Your task to perform on an android device: Empty the shopping cart on ebay.com. Add "macbook pro 13 inch" to the cart on ebay.com, then select checkout. Image 0: 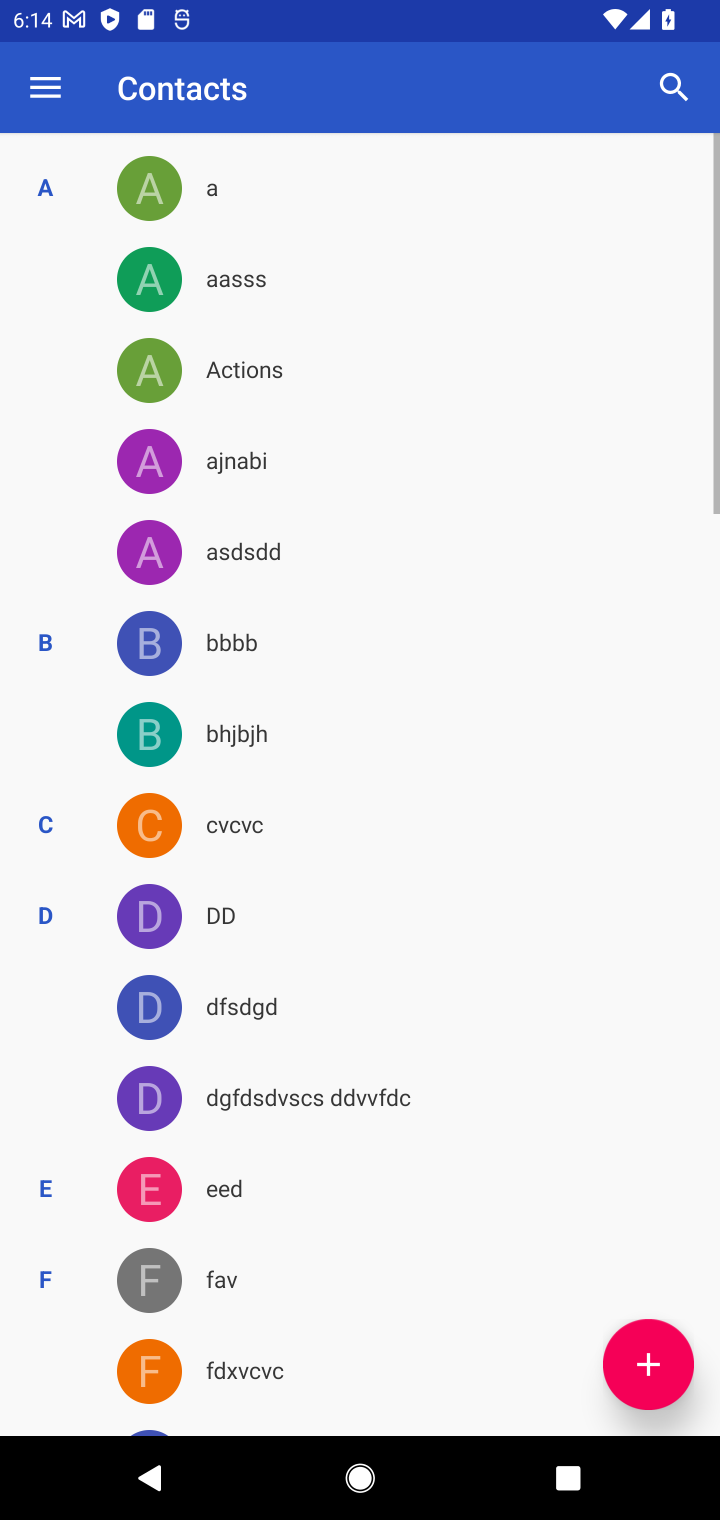
Step 0: press home button
Your task to perform on an android device: Empty the shopping cart on ebay.com. Add "macbook pro 13 inch" to the cart on ebay.com, then select checkout. Image 1: 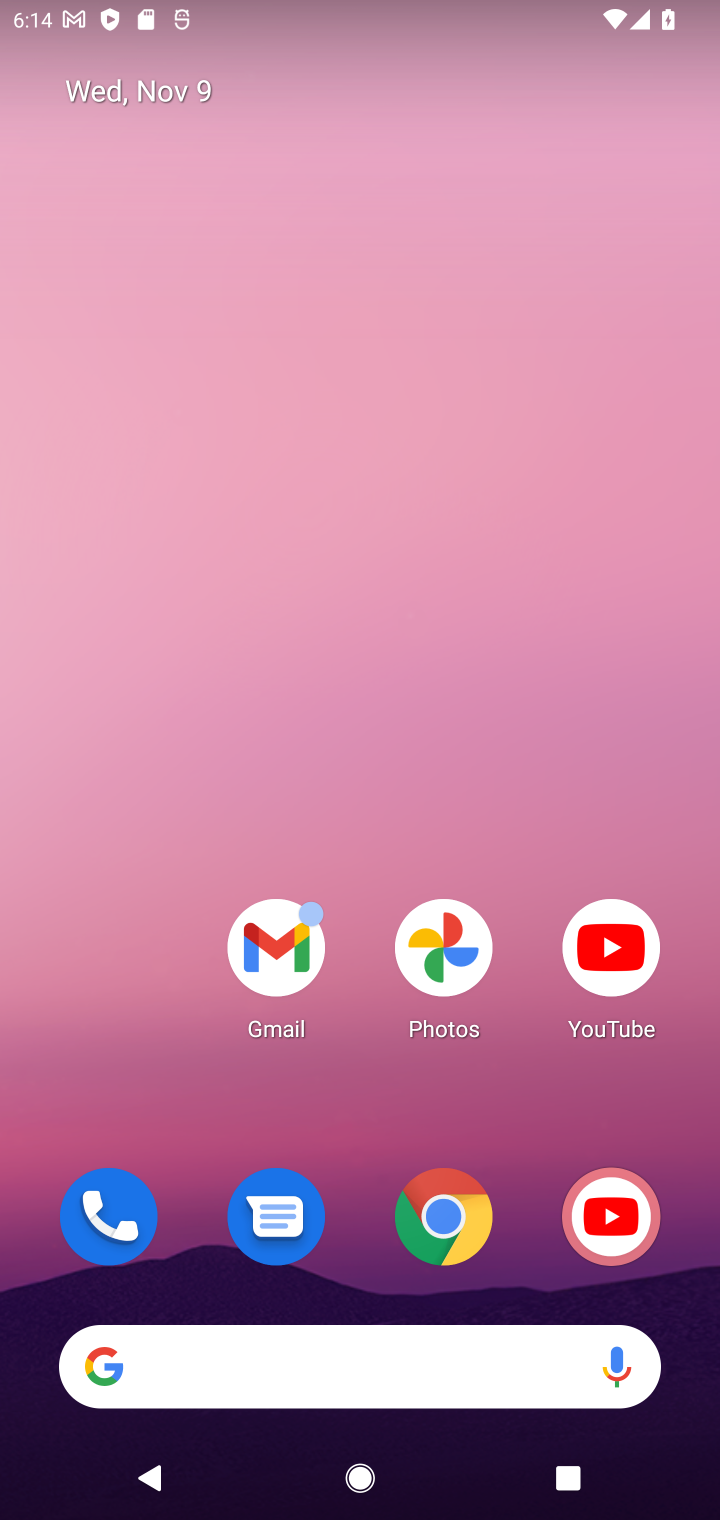
Step 1: drag from (360, 1146) to (394, 150)
Your task to perform on an android device: Empty the shopping cart on ebay.com. Add "macbook pro 13 inch" to the cart on ebay.com, then select checkout. Image 2: 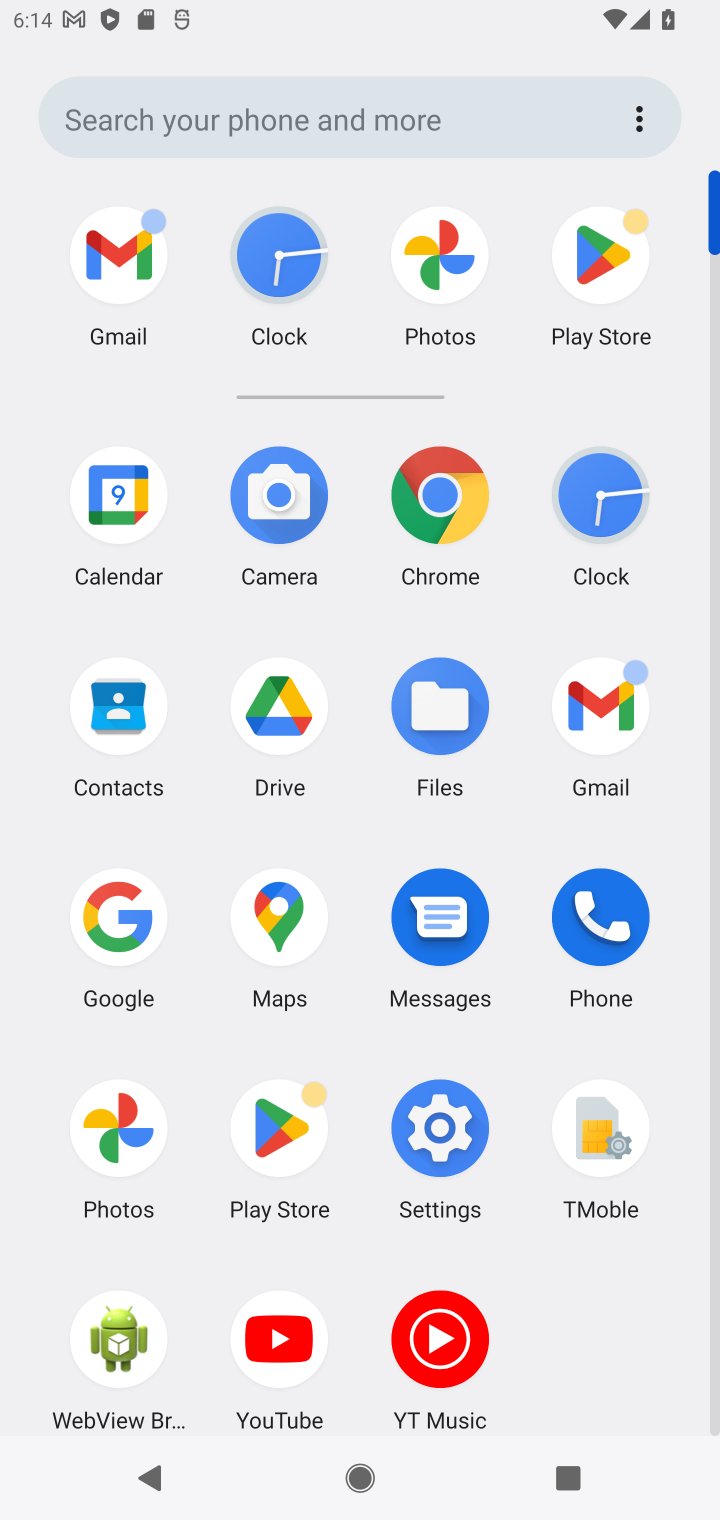
Step 2: click (451, 508)
Your task to perform on an android device: Empty the shopping cart on ebay.com. Add "macbook pro 13 inch" to the cart on ebay.com, then select checkout. Image 3: 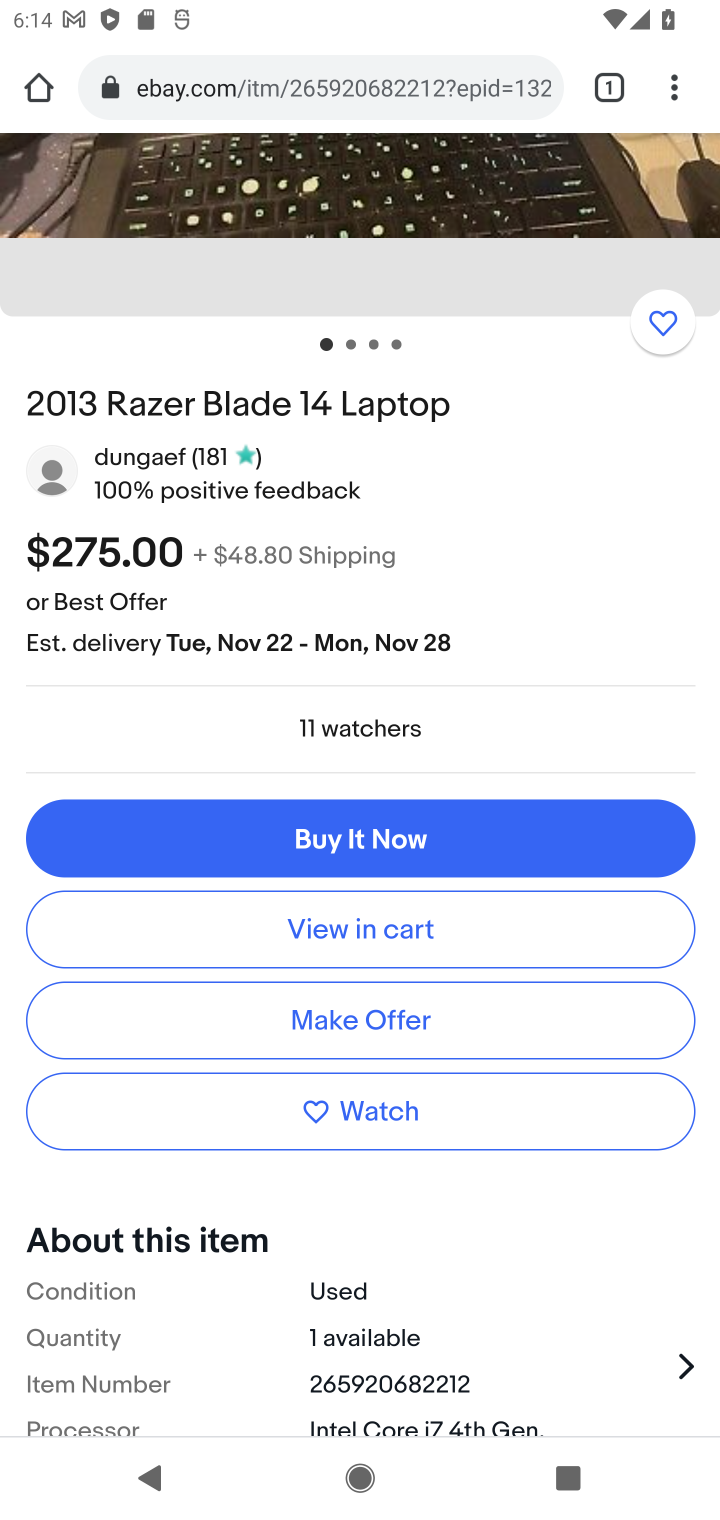
Step 3: click (414, 78)
Your task to perform on an android device: Empty the shopping cart on ebay.com. Add "macbook pro 13 inch" to the cart on ebay.com, then select checkout. Image 4: 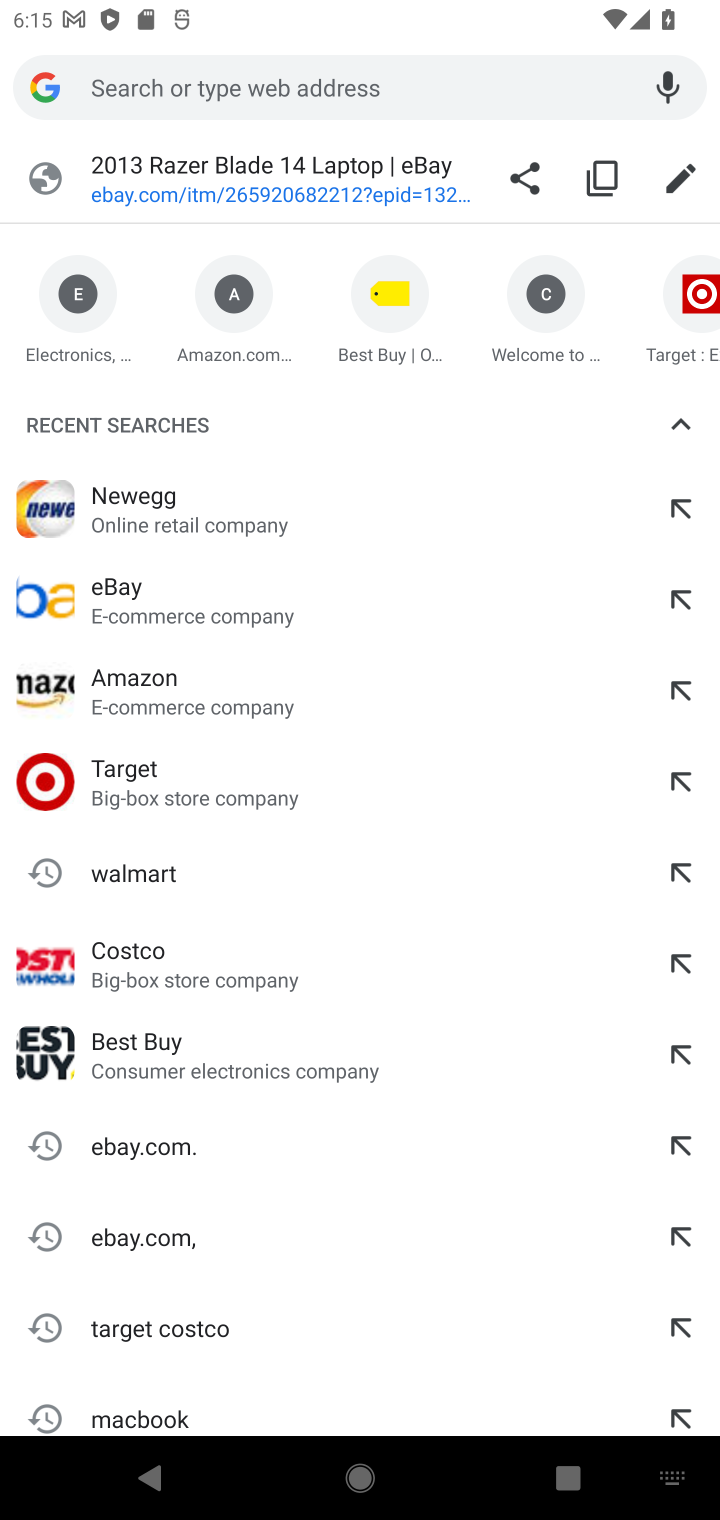
Step 4: type "ebay.com"
Your task to perform on an android device: Empty the shopping cart on ebay.com. Add "macbook pro 13 inch" to the cart on ebay.com, then select checkout. Image 5: 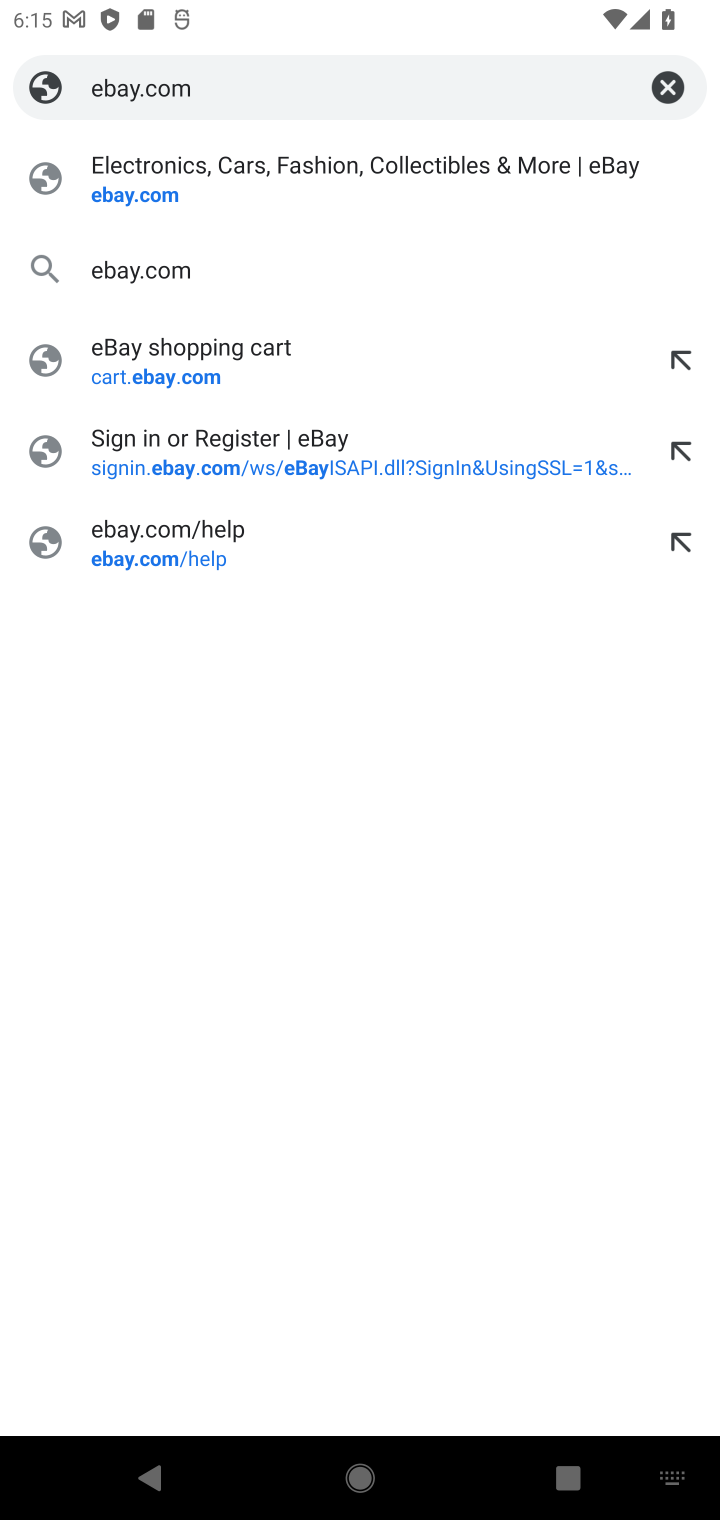
Step 5: press enter
Your task to perform on an android device: Empty the shopping cart on ebay.com. Add "macbook pro 13 inch" to the cart on ebay.com, then select checkout. Image 6: 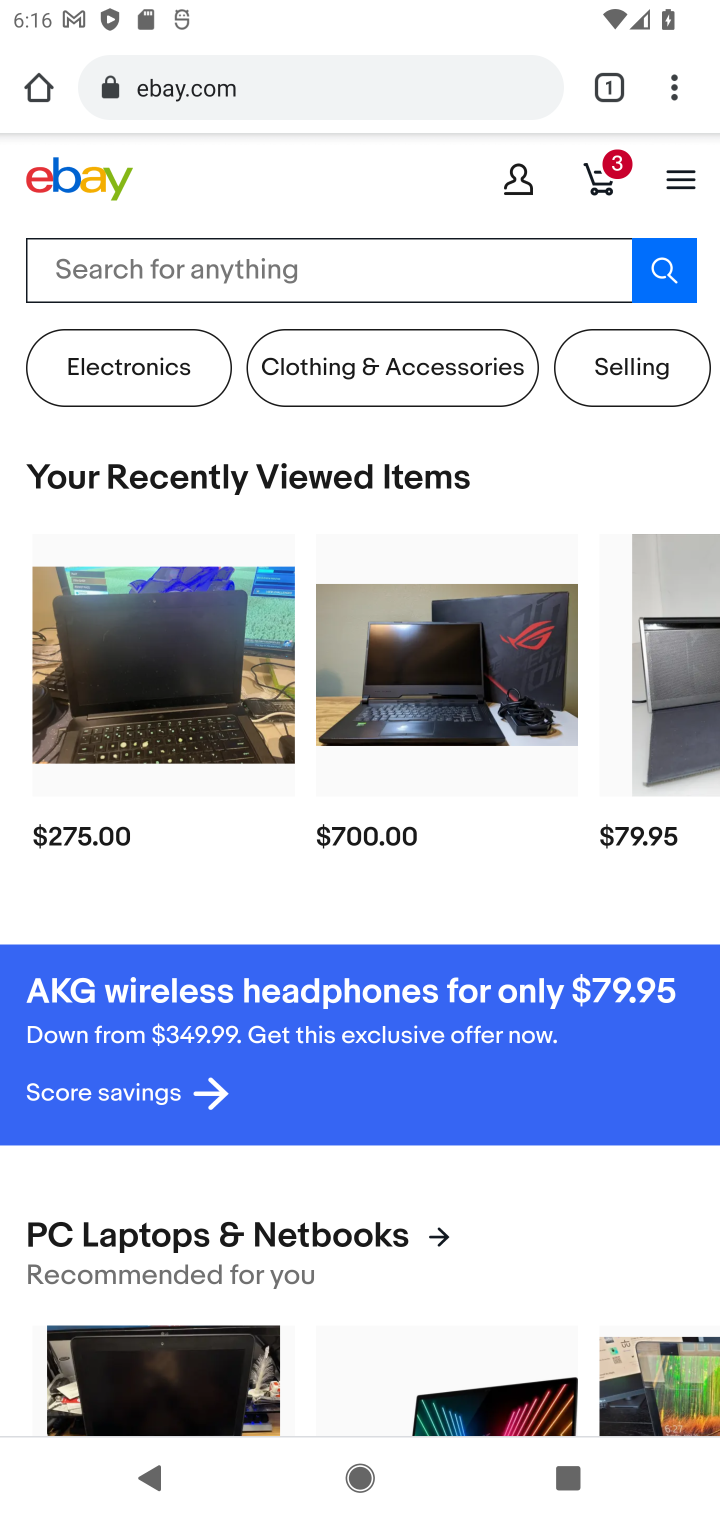
Step 6: click (603, 172)
Your task to perform on an android device: Empty the shopping cart on ebay.com. Add "macbook pro 13 inch" to the cart on ebay.com, then select checkout. Image 7: 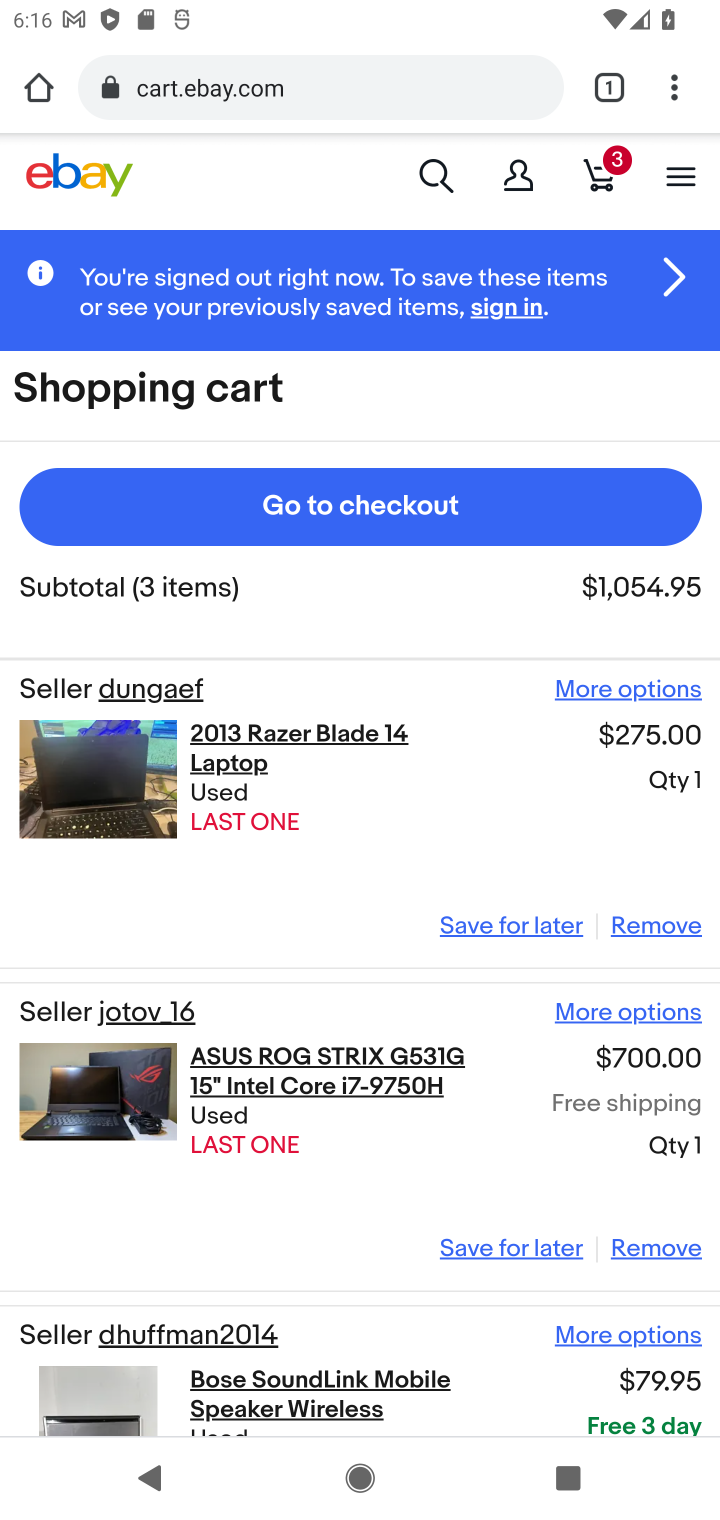
Step 7: click (663, 927)
Your task to perform on an android device: Empty the shopping cart on ebay.com. Add "macbook pro 13 inch" to the cart on ebay.com, then select checkout. Image 8: 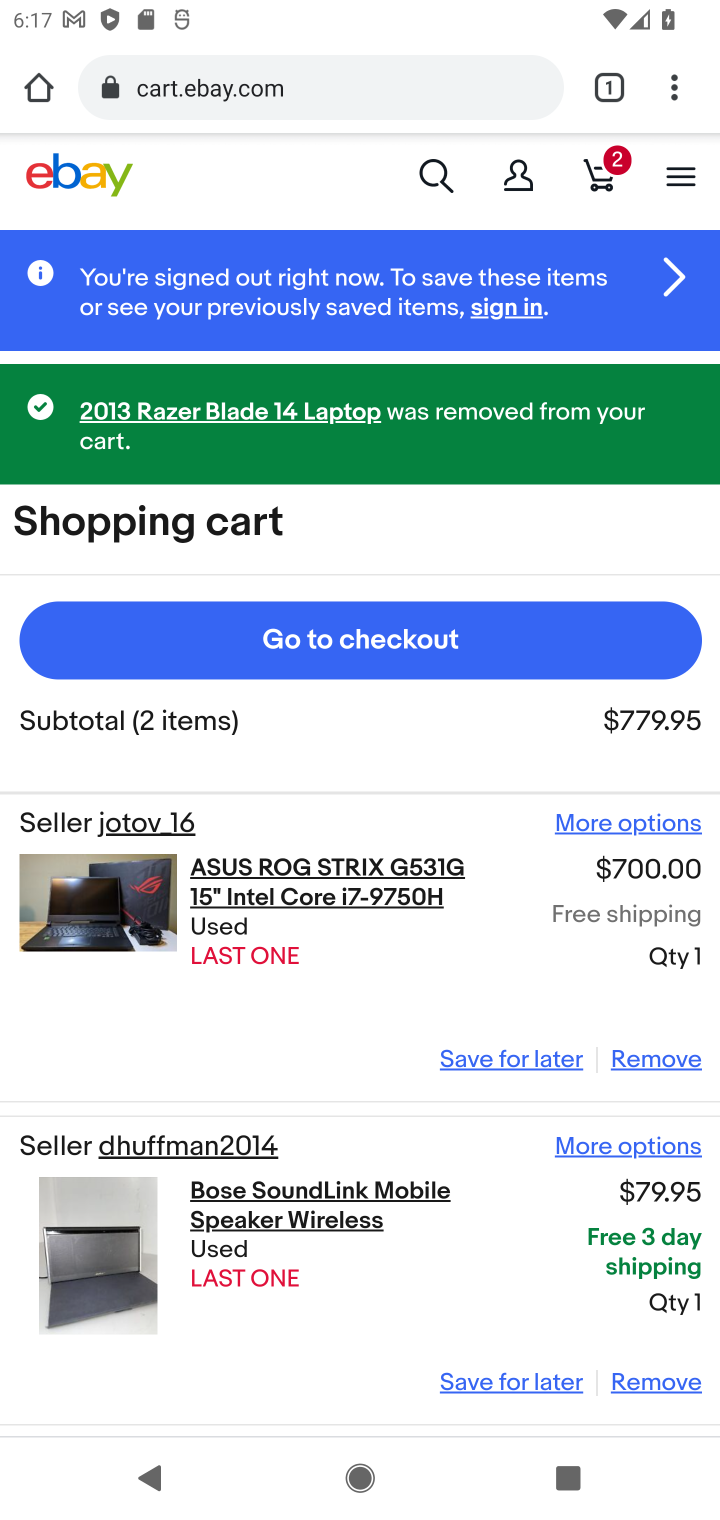
Step 8: click (667, 1063)
Your task to perform on an android device: Empty the shopping cart on ebay.com. Add "macbook pro 13 inch" to the cart on ebay.com, then select checkout. Image 9: 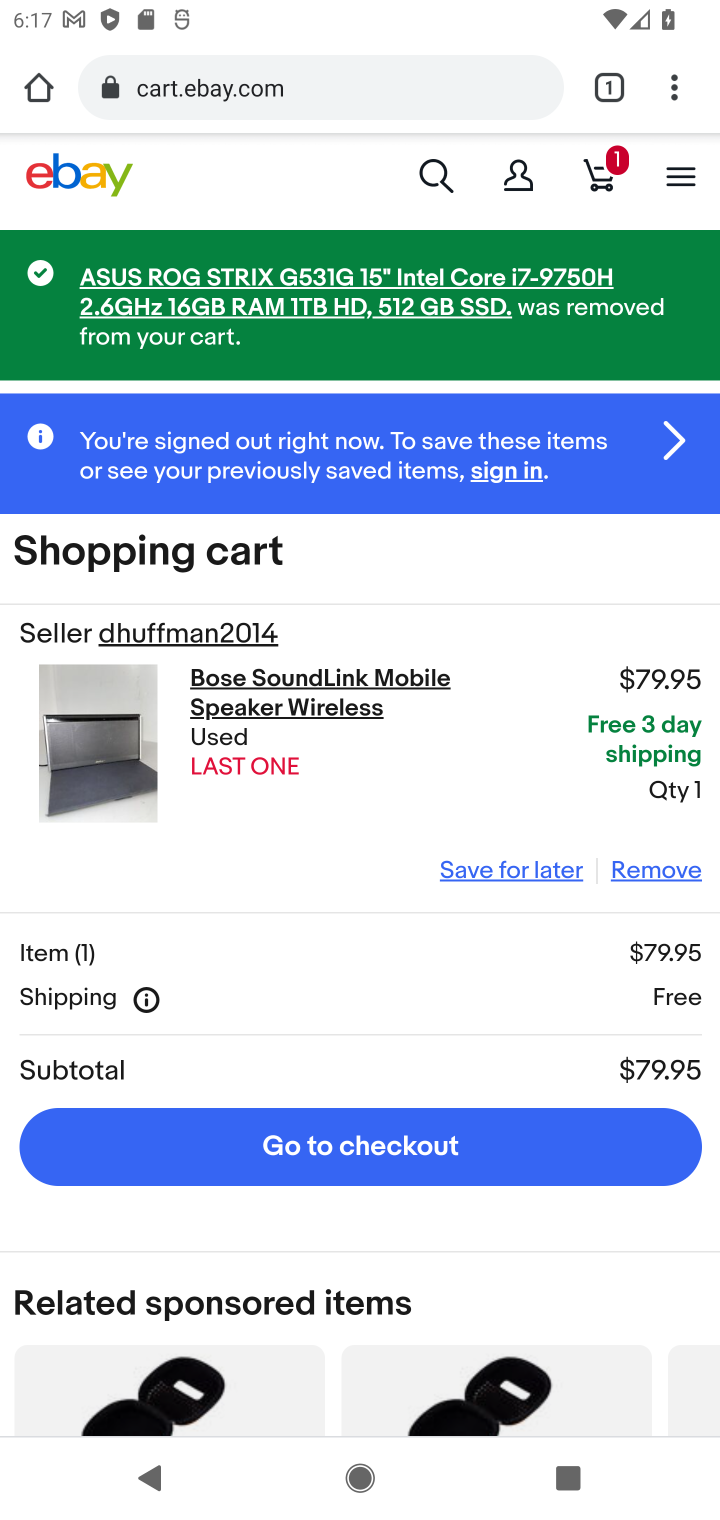
Step 9: click (659, 872)
Your task to perform on an android device: Empty the shopping cart on ebay.com. Add "macbook pro 13 inch" to the cart on ebay.com, then select checkout. Image 10: 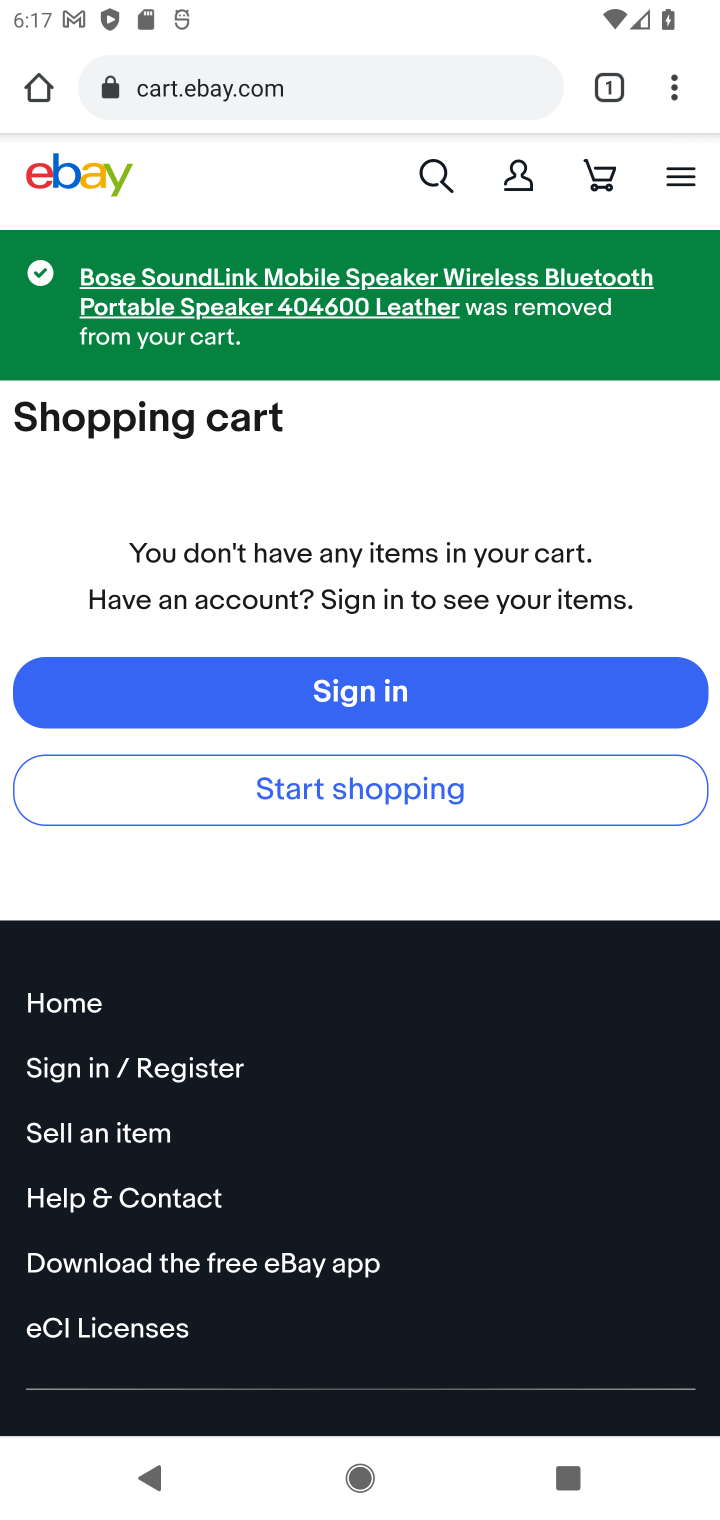
Step 10: click (422, 171)
Your task to perform on an android device: Empty the shopping cart on ebay.com. Add "macbook pro 13 inch" to the cart on ebay.com, then select checkout. Image 11: 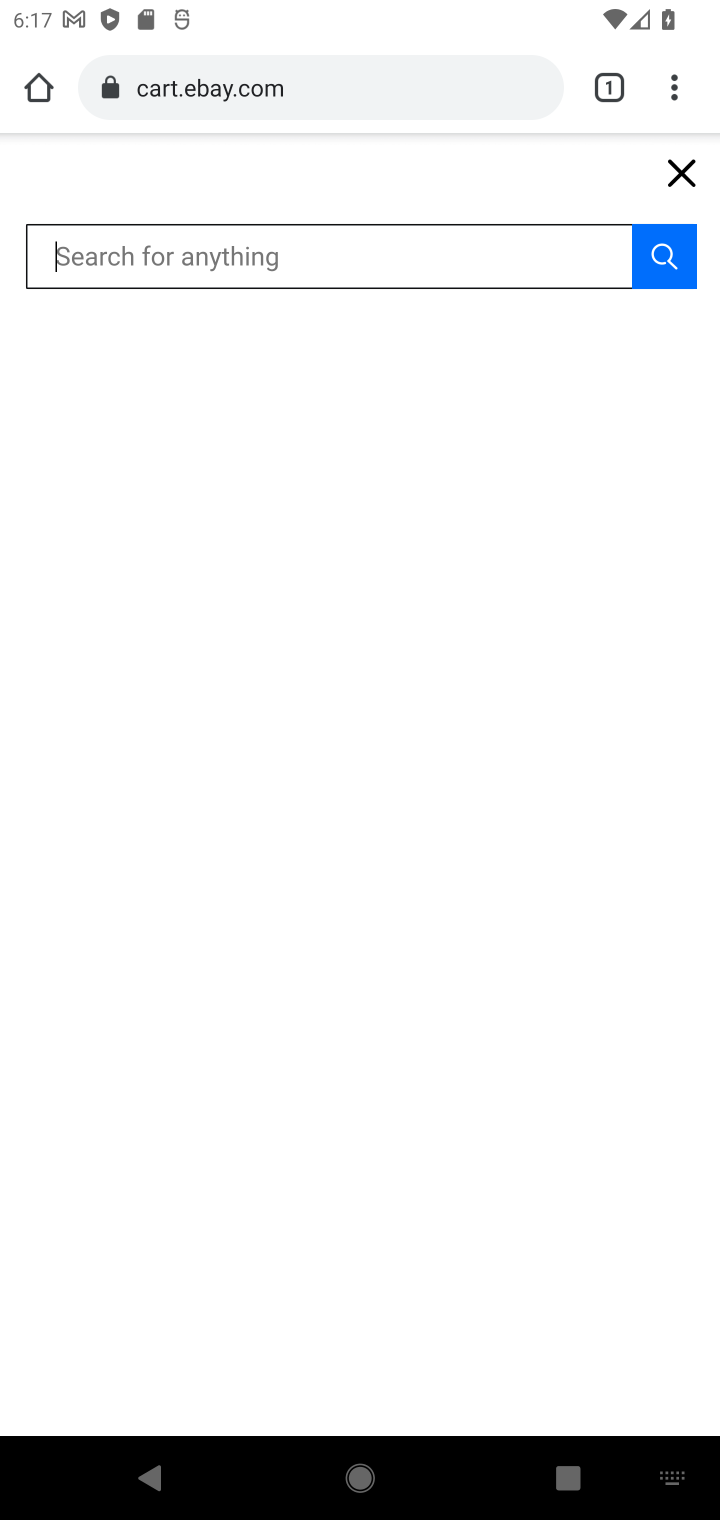
Step 11: type "macbook pro 13 inch"
Your task to perform on an android device: Empty the shopping cart on ebay.com. Add "macbook pro 13 inch" to the cart on ebay.com, then select checkout. Image 12: 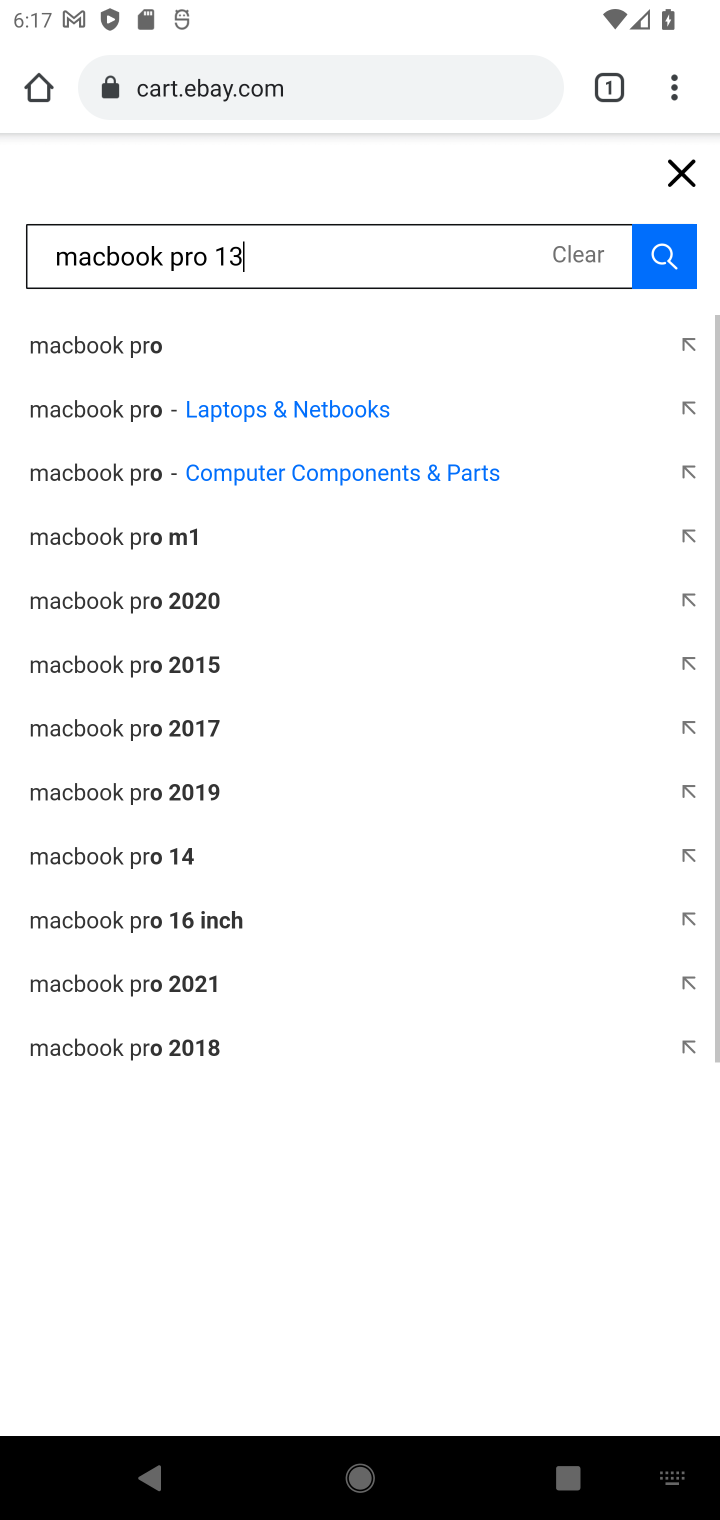
Step 12: press enter
Your task to perform on an android device: Empty the shopping cart on ebay.com. Add "macbook pro 13 inch" to the cart on ebay.com, then select checkout. Image 13: 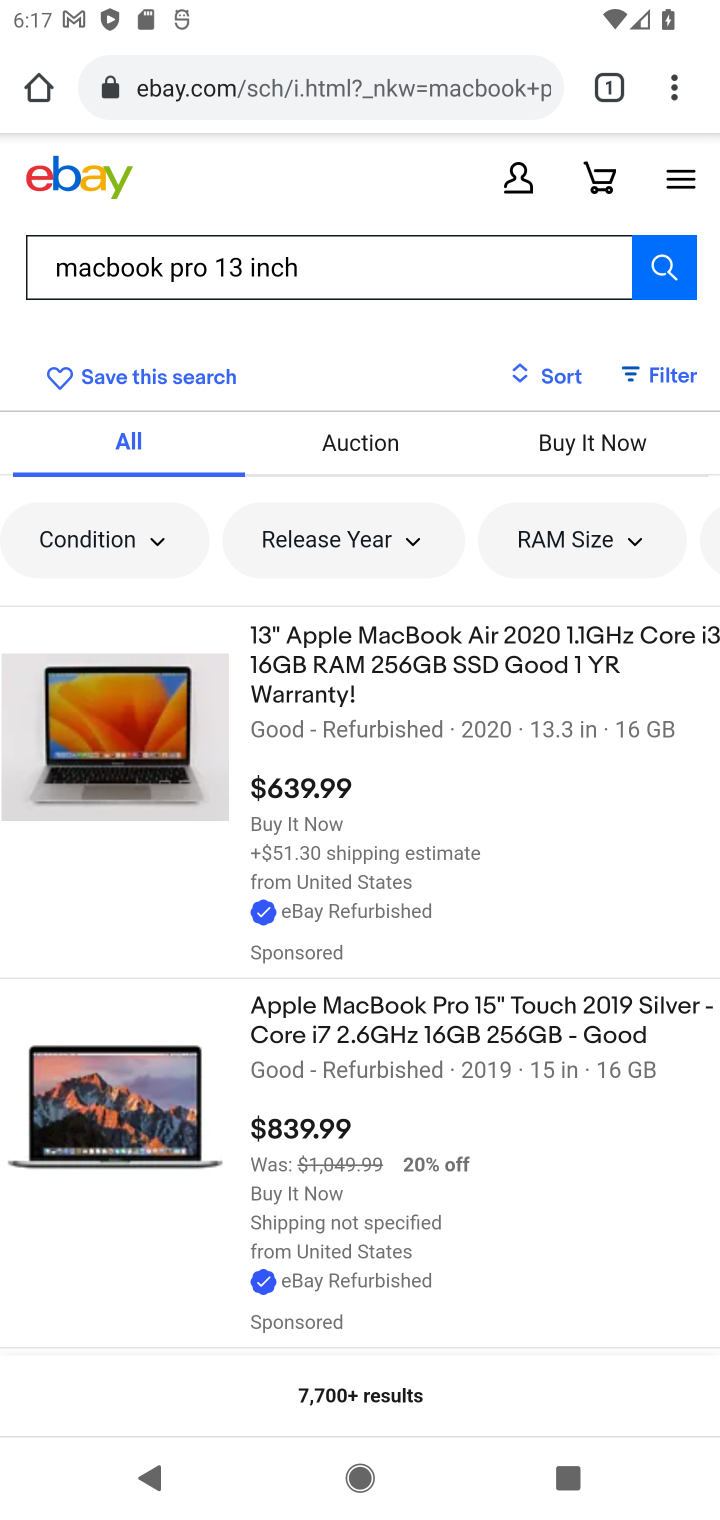
Step 13: drag from (469, 1166) to (533, 611)
Your task to perform on an android device: Empty the shopping cart on ebay.com. Add "macbook pro 13 inch" to the cart on ebay.com, then select checkout. Image 14: 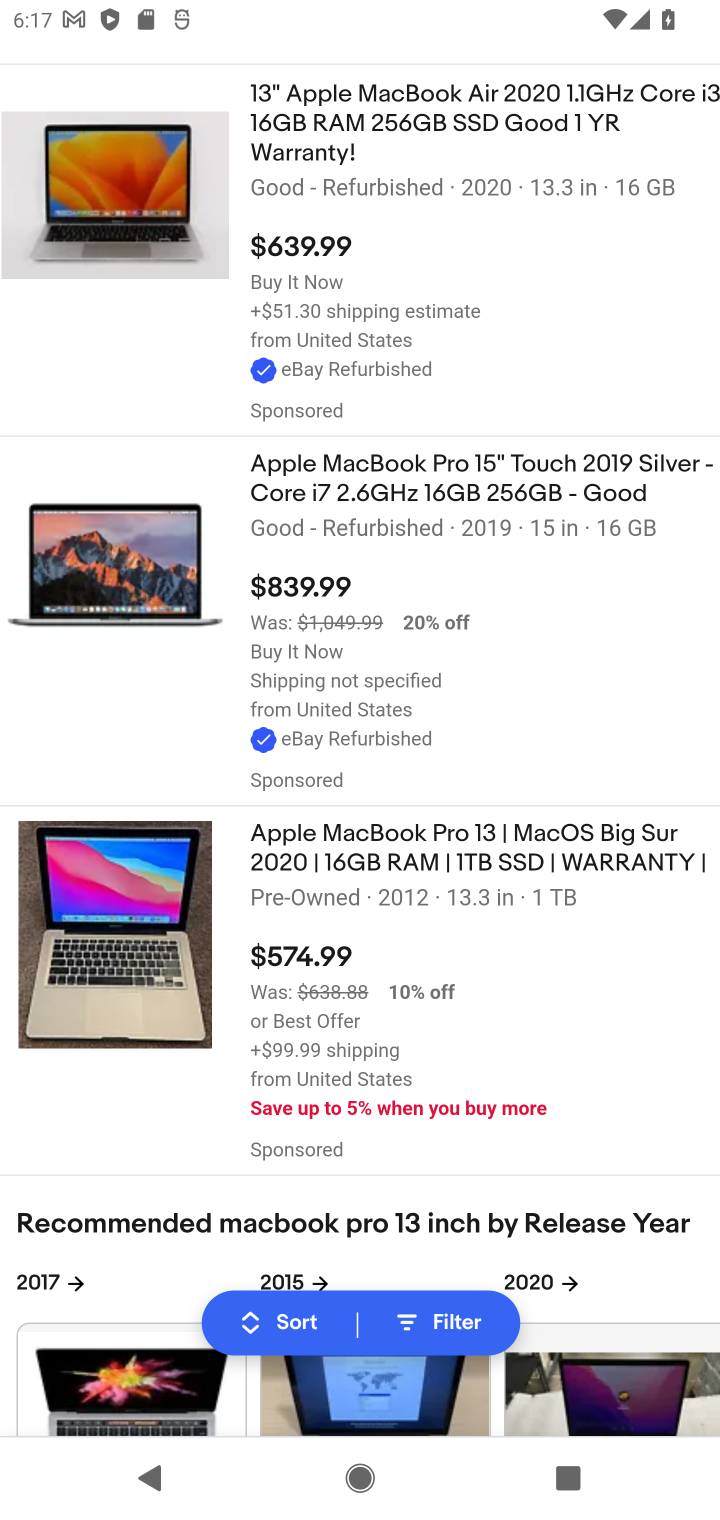
Step 14: click (437, 854)
Your task to perform on an android device: Empty the shopping cart on ebay.com. Add "macbook pro 13 inch" to the cart on ebay.com, then select checkout. Image 15: 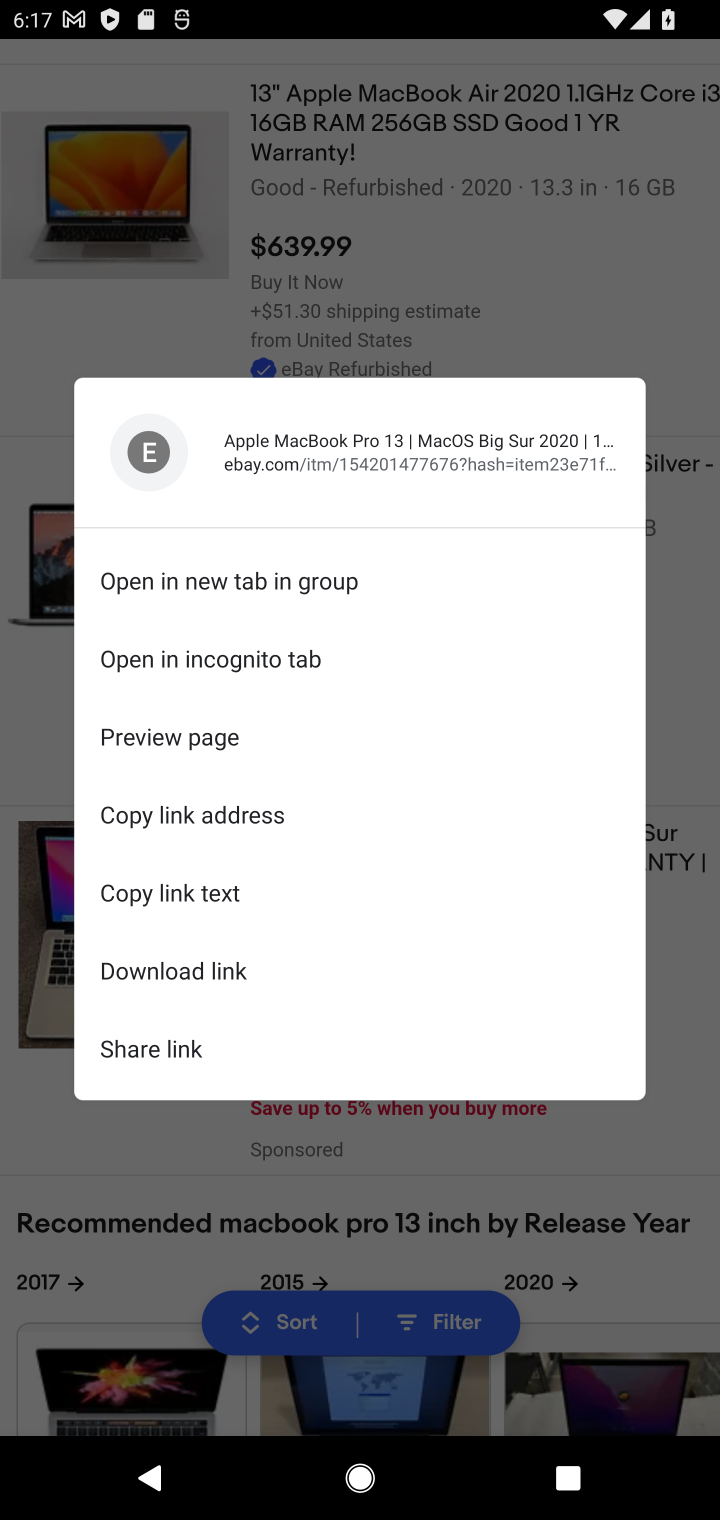
Step 15: click (665, 878)
Your task to perform on an android device: Empty the shopping cart on ebay.com. Add "macbook pro 13 inch" to the cart on ebay.com, then select checkout. Image 16: 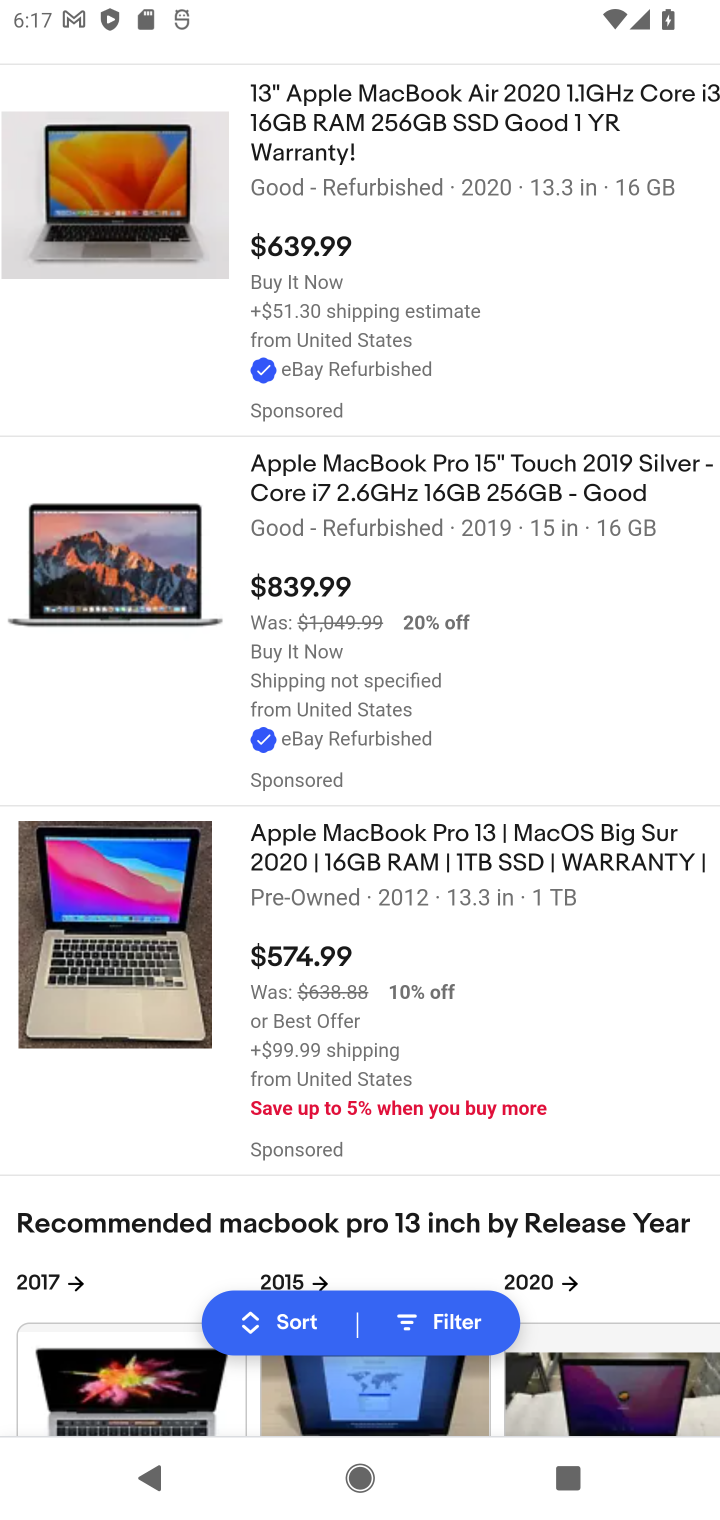
Step 16: click (463, 886)
Your task to perform on an android device: Empty the shopping cart on ebay.com. Add "macbook pro 13 inch" to the cart on ebay.com, then select checkout. Image 17: 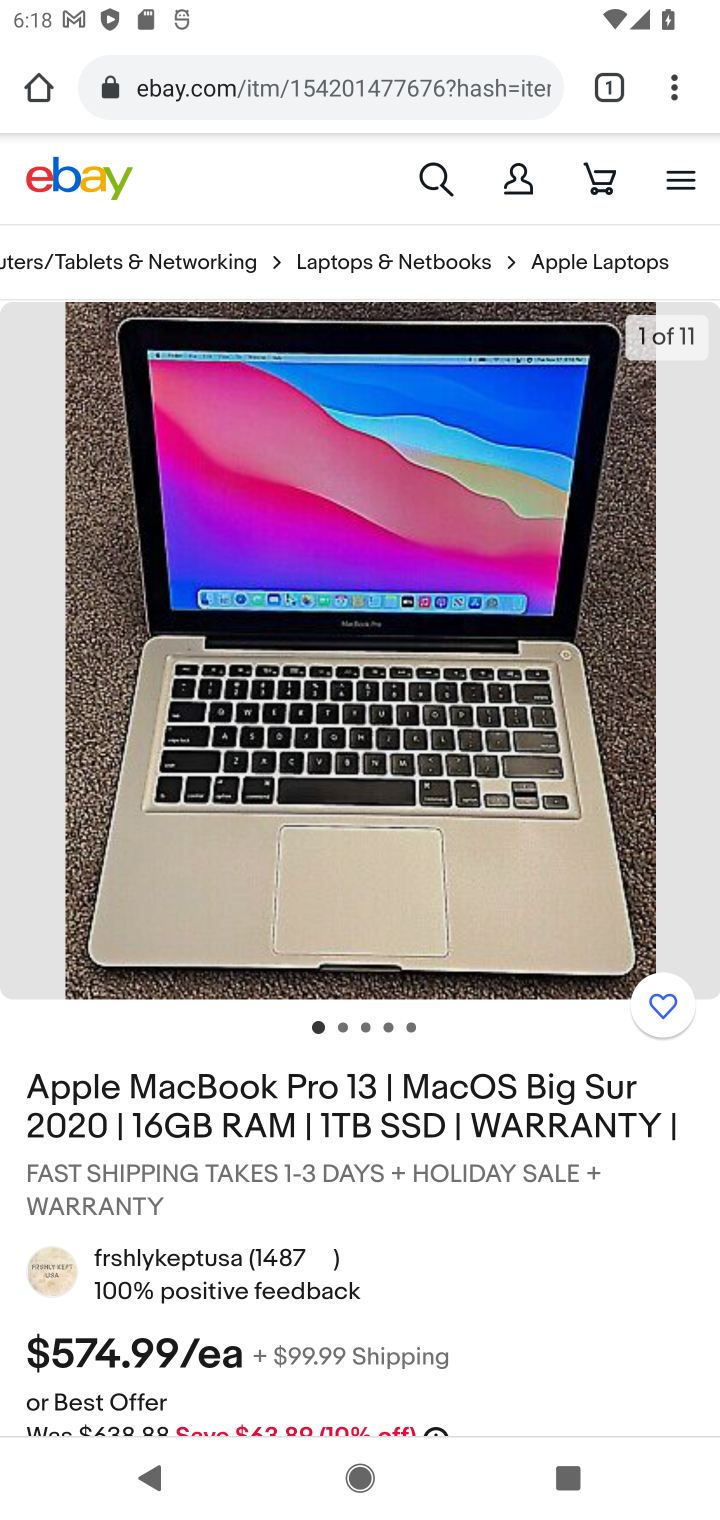
Step 17: drag from (413, 843) to (425, 330)
Your task to perform on an android device: Empty the shopping cart on ebay.com. Add "macbook pro 13 inch" to the cart on ebay.com, then select checkout. Image 18: 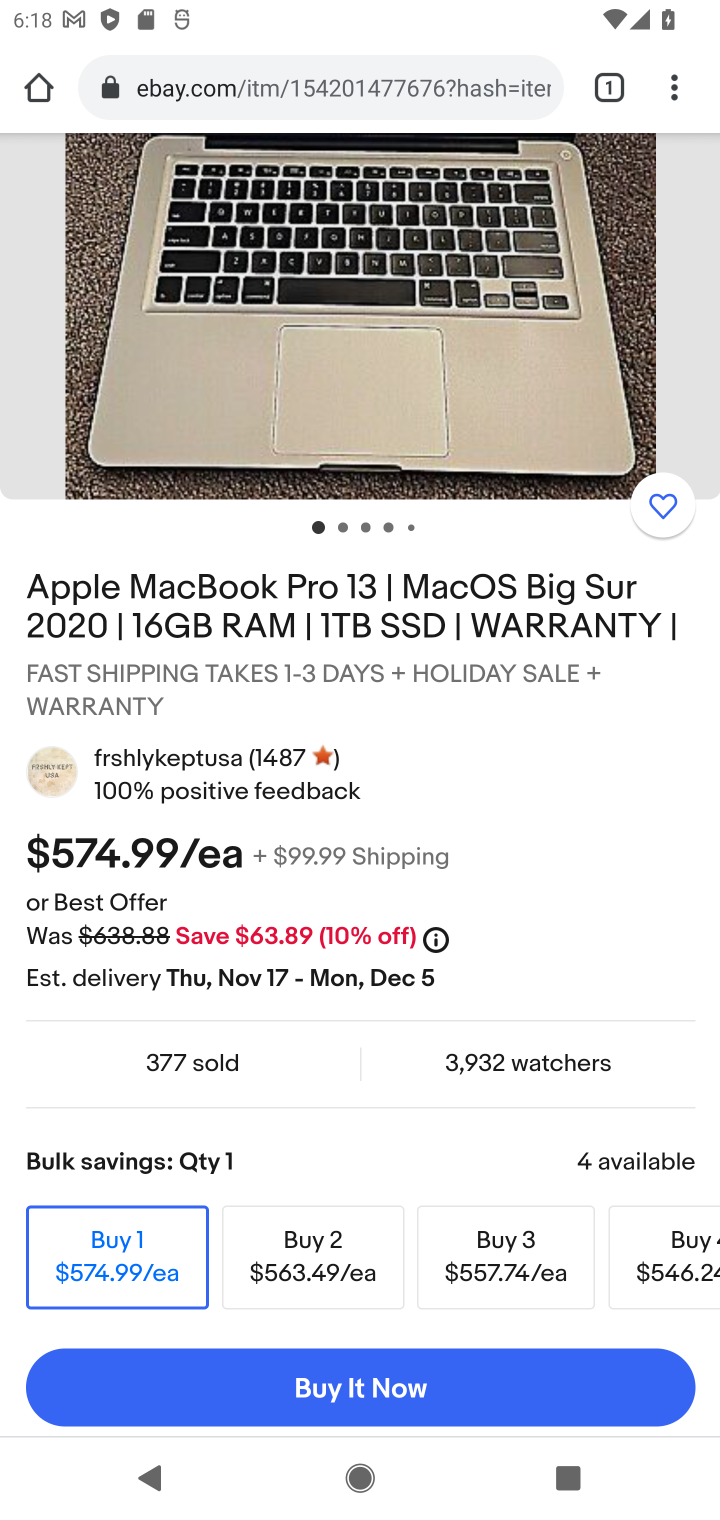
Step 18: drag from (467, 1191) to (476, 618)
Your task to perform on an android device: Empty the shopping cart on ebay.com. Add "macbook pro 13 inch" to the cart on ebay.com, then select checkout. Image 19: 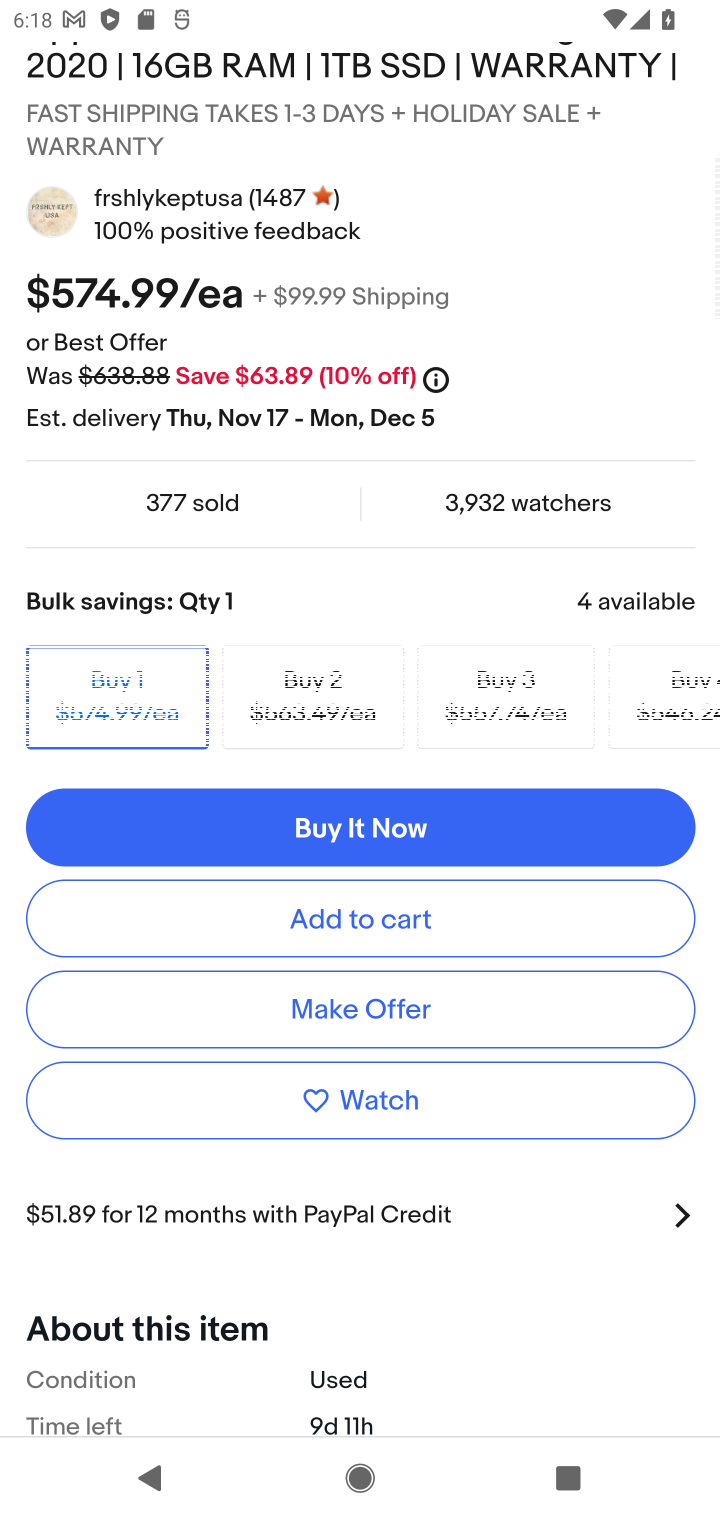
Step 19: click (398, 918)
Your task to perform on an android device: Empty the shopping cart on ebay.com. Add "macbook pro 13 inch" to the cart on ebay.com, then select checkout. Image 20: 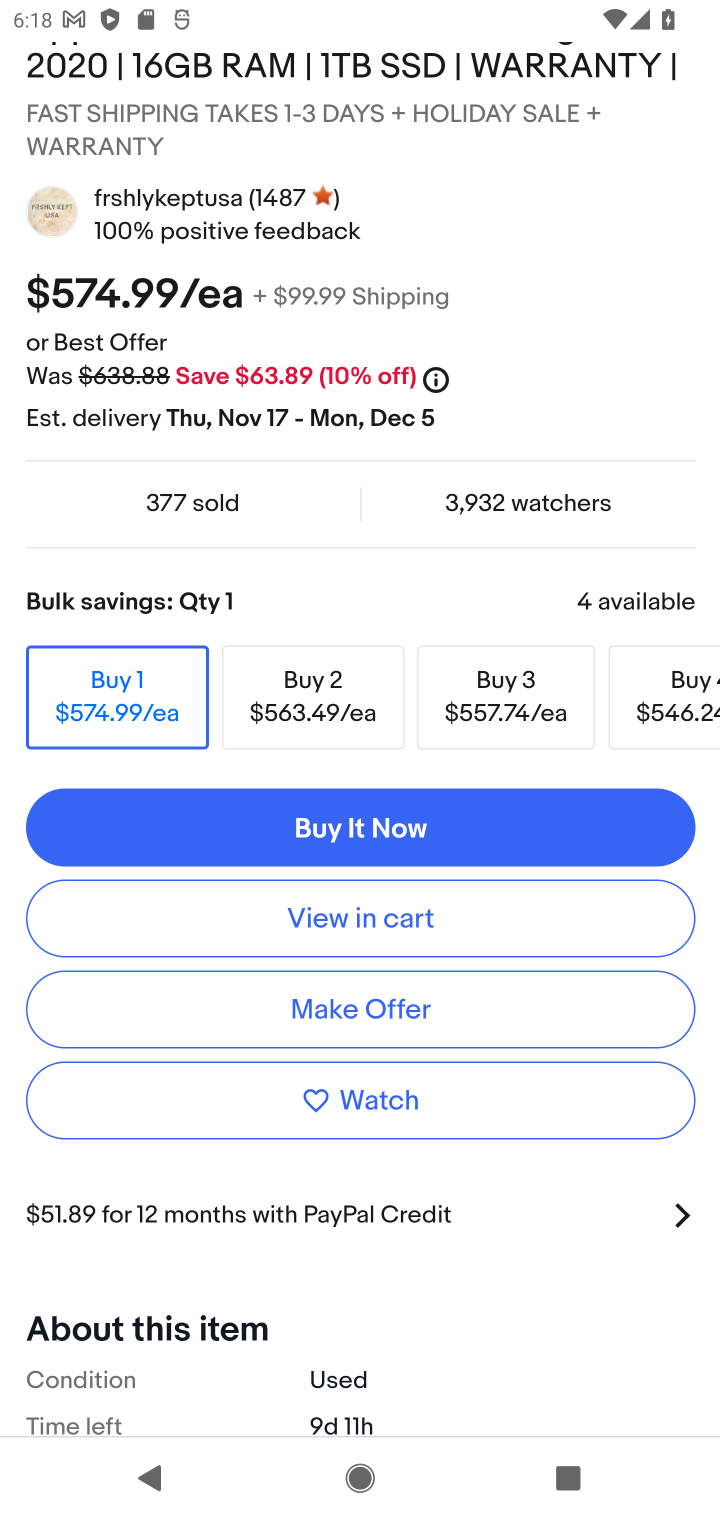
Step 20: click (479, 906)
Your task to perform on an android device: Empty the shopping cart on ebay.com. Add "macbook pro 13 inch" to the cart on ebay.com, then select checkout. Image 21: 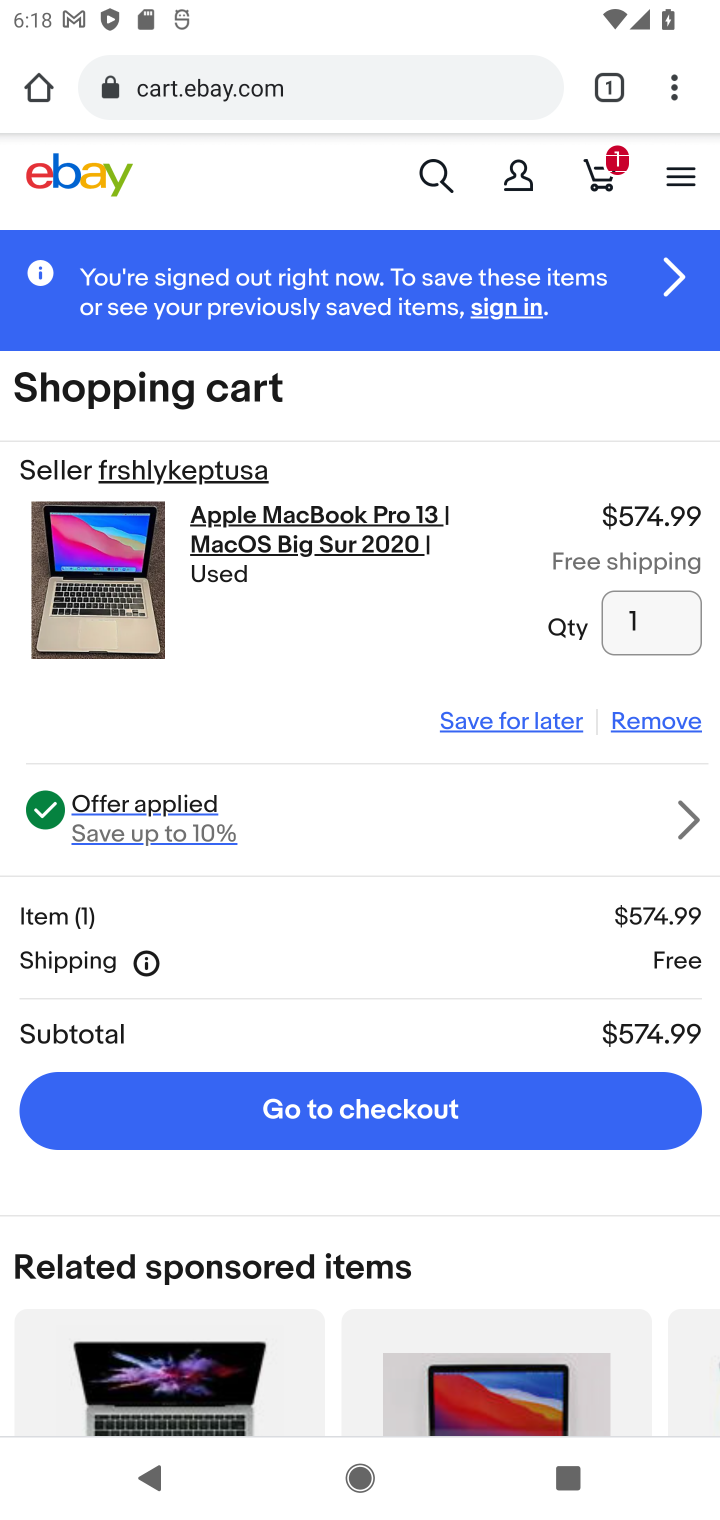
Step 21: click (429, 1127)
Your task to perform on an android device: Empty the shopping cart on ebay.com. Add "macbook pro 13 inch" to the cart on ebay.com, then select checkout. Image 22: 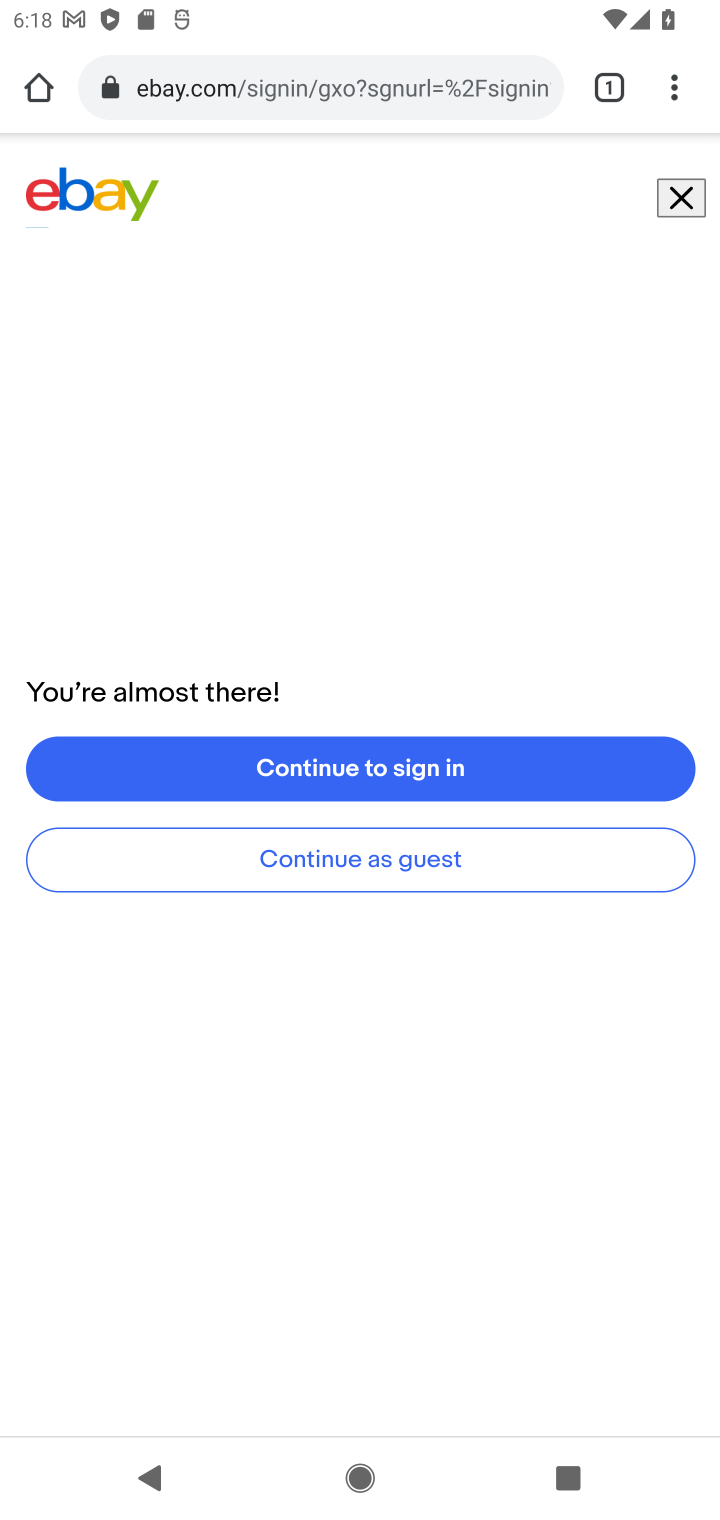
Step 22: task complete